Your task to perform on an android device: Go to settings Image 0: 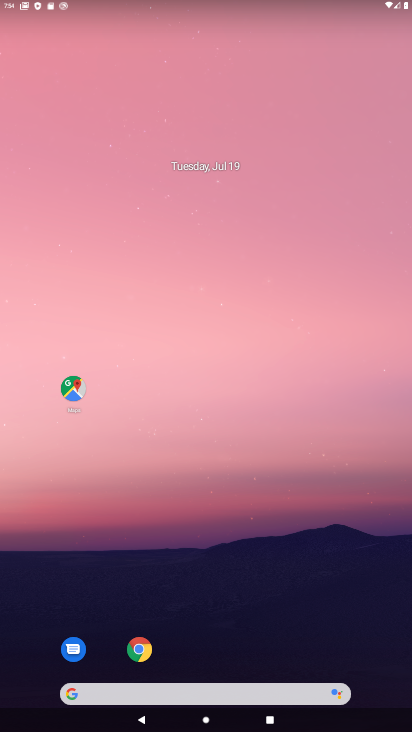
Step 0: drag from (232, 519) to (268, 96)
Your task to perform on an android device: Go to settings Image 1: 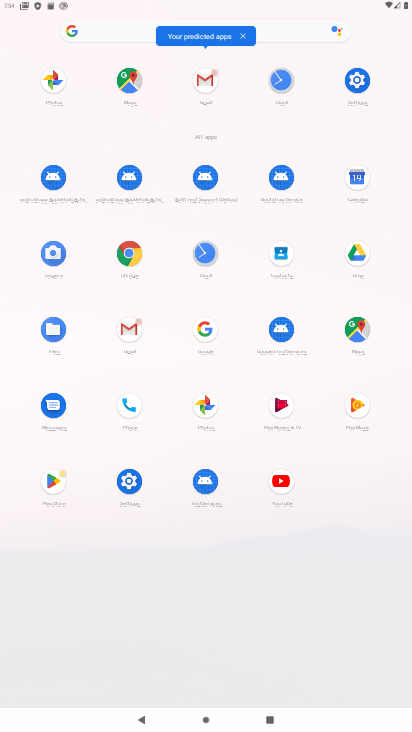
Step 1: click (342, 84)
Your task to perform on an android device: Go to settings Image 2: 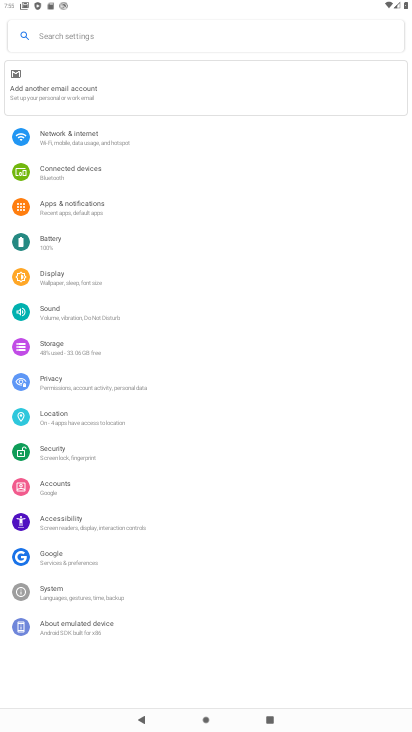
Step 2: task complete